Your task to perform on an android device: Open notification settings Image 0: 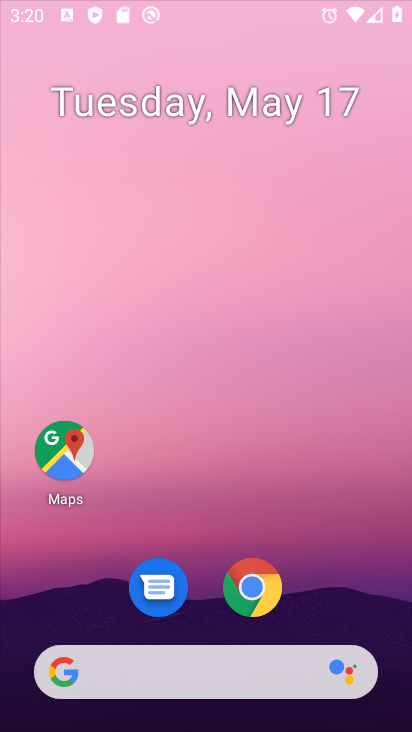
Step 0: click (190, 89)
Your task to perform on an android device: Open notification settings Image 1: 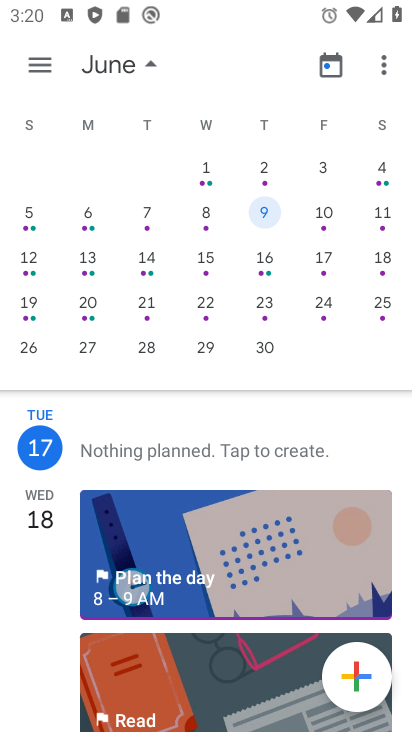
Step 1: press home button
Your task to perform on an android device: Open notification settings Image 2: 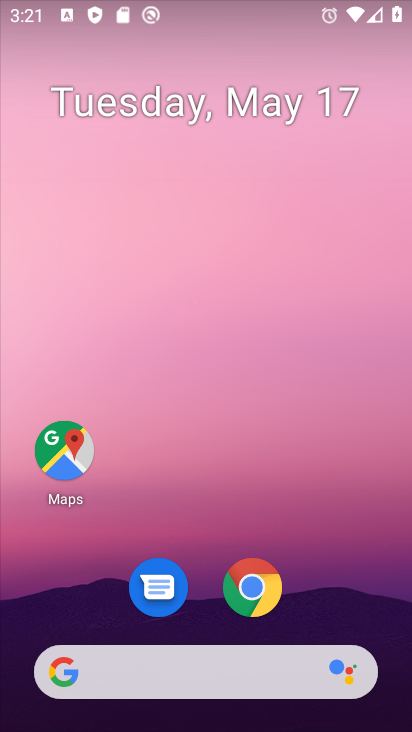
Step 2: drag from (194, 595) to (263, 1)
Your task to perform on an android device: Open notification settings Image 3: 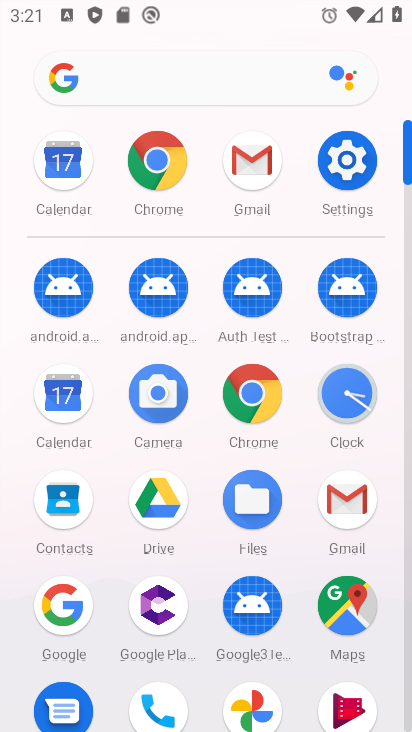
Step 3: drag from (199, 641) to (254, 235)
Your task to perform on an android device: Open notification settings Image 4: 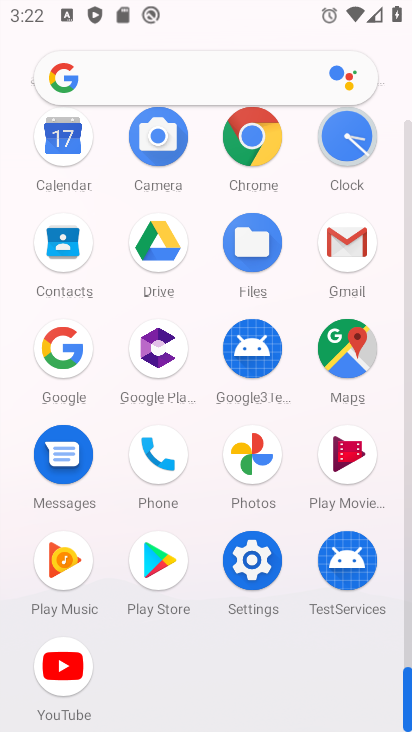
Step 4: click (241, 547)
Your task to perform on an android device: Open notification settings Image 5: 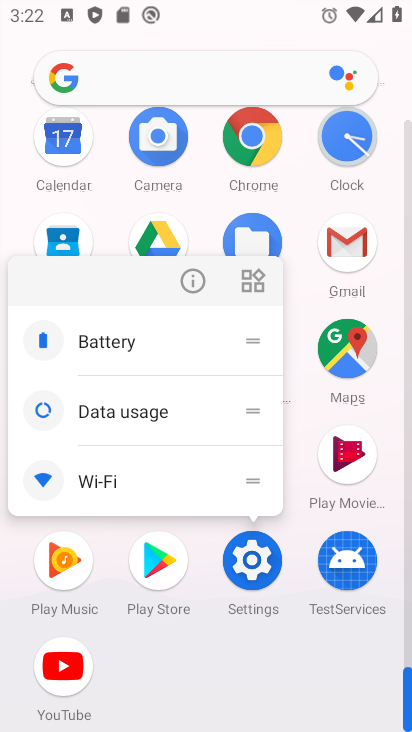
Step 5: click (191, 279)
Your task to perform on an android device: Open notification settings Image 6: 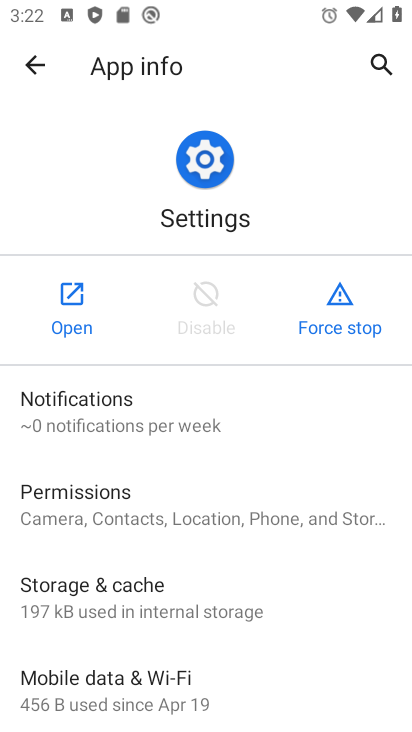
Step 6: click (80, 310)
Your task to perform on an android device: Open notification settings Image 7: 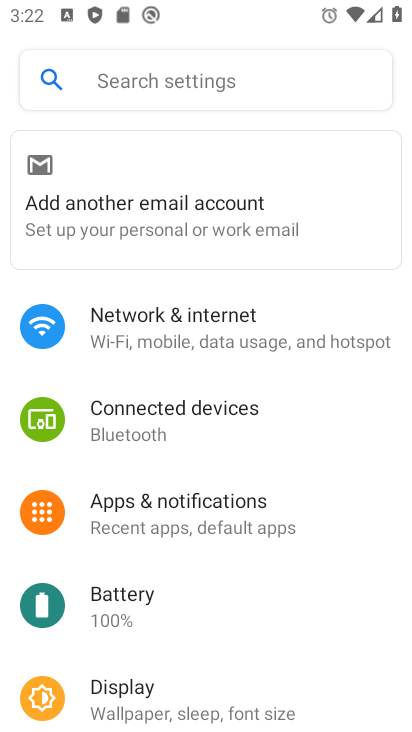
Step 7: click (191, 512)
Your task to perform on an android device: Open notification settings Image 8: 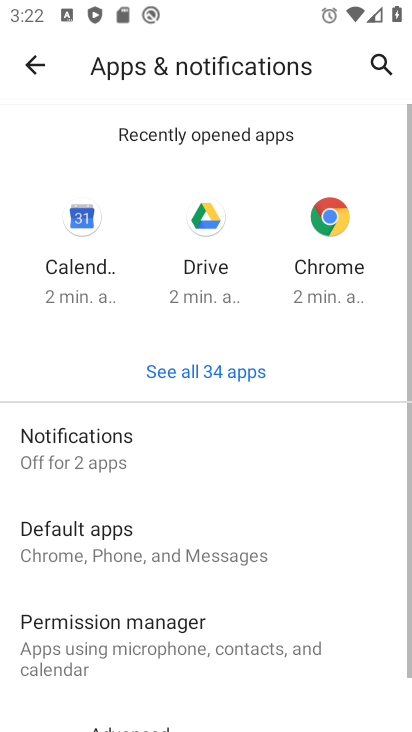
Step 8: drag from (229, 567) to (310, 133)
Your task to perform on an android device: Open notification settings Image 9: 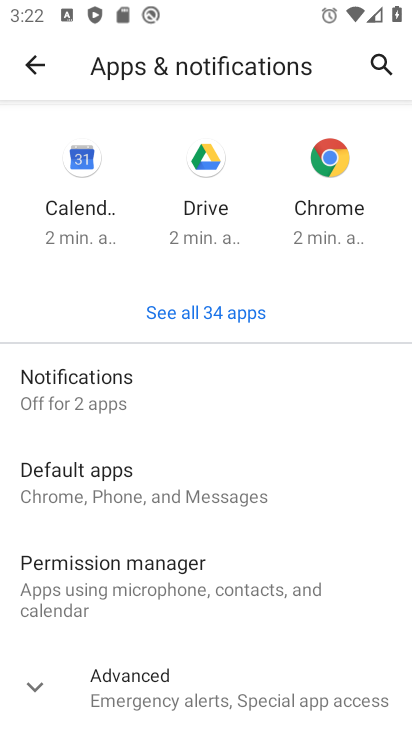
Step 9: click (143, 372)
Your task to perform on an android device: Open notification settings Image 10: 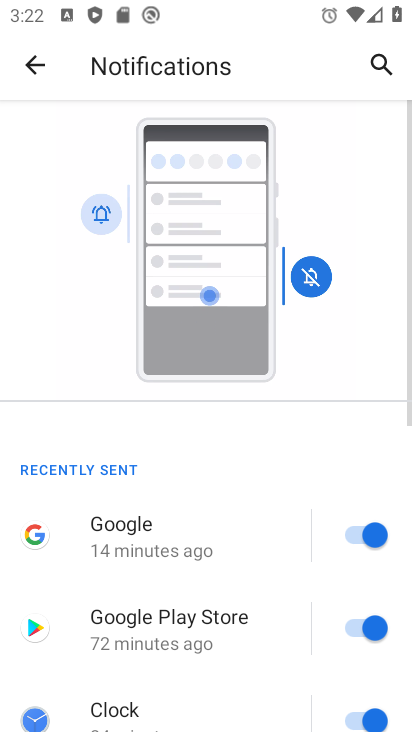
Step 10: task complete